Your task to perform on an android device: Go to Google maps Image 0: 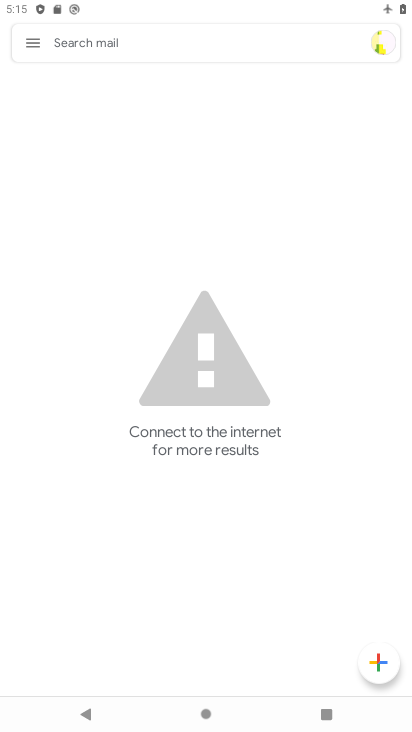
Step 0: click (207, 718)
Your task to perform on an android device: Go to Google maps Image 1: 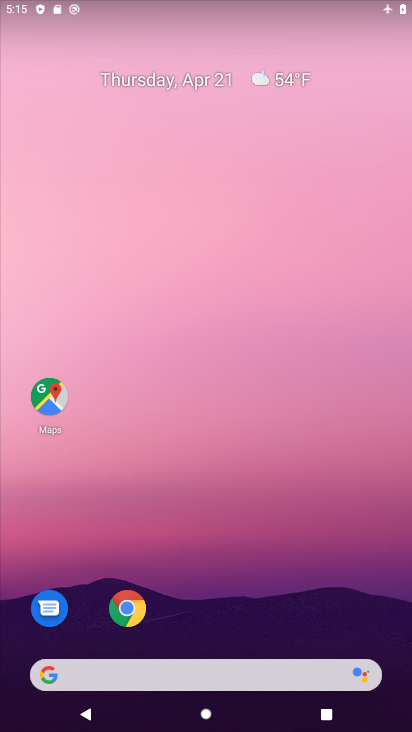
Step 1: drag from (279, 612) to (271, 7)
Your task to perform on an android device: Go to Google maps Image 2: 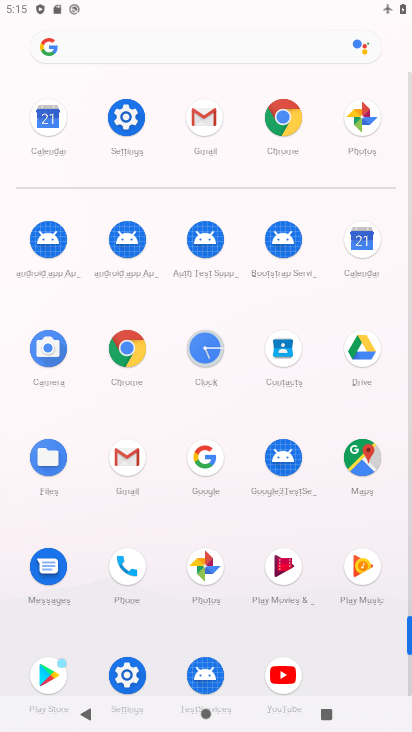
Step 2: click (354, 465)
Your task to perform on an android device: Go to Google maps Image 3: 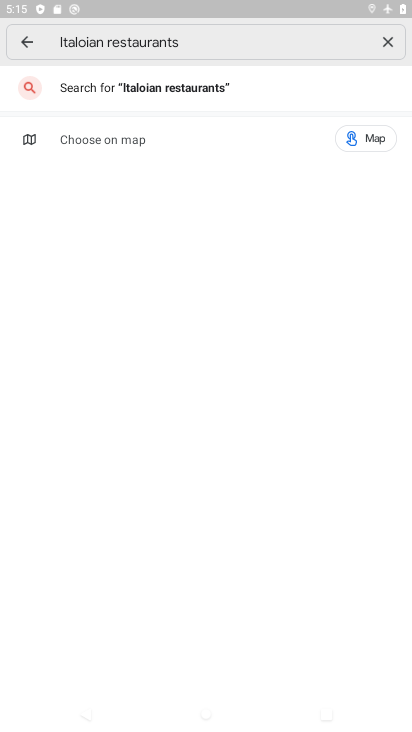
Step 3: task complete